Your task to perform on an android device: Play the last video I watched on Youtube Image 0: 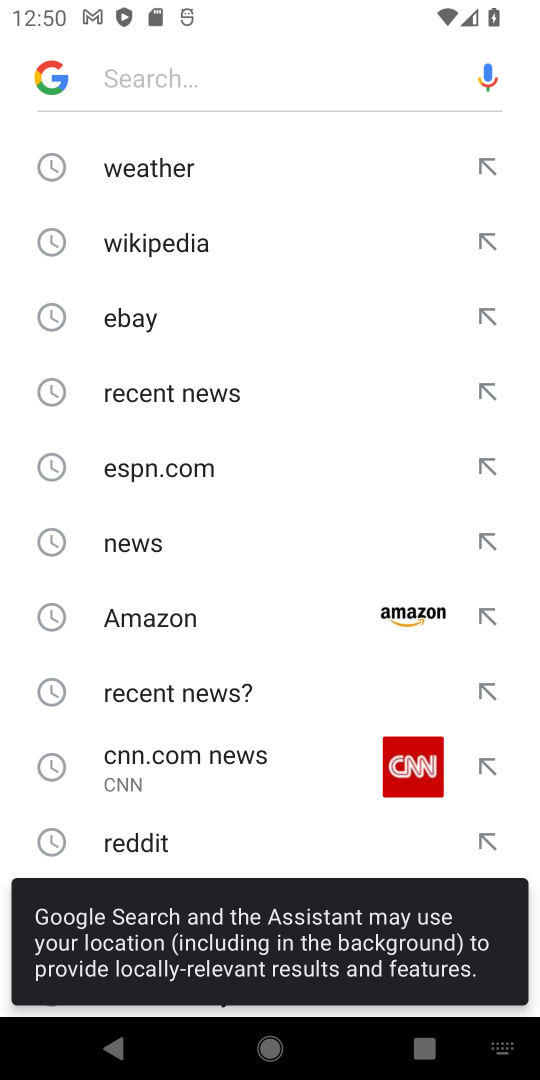
Step 0: press home button
Your task to perform on an android device: Play the last video I watched on Youtube Image 1: 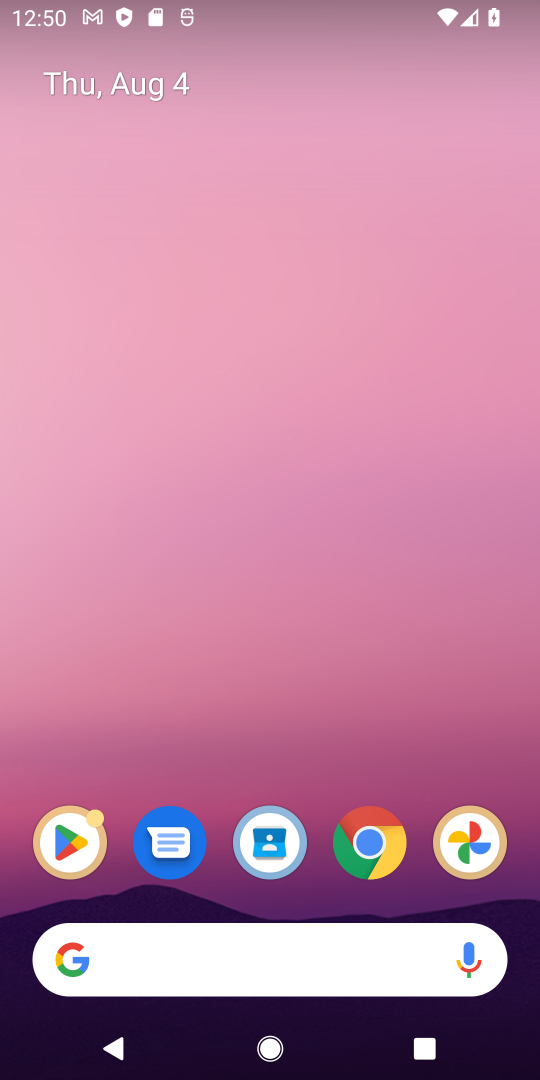
Step 1: drag from (277, 753) to (154, 120)
Your task to perform on an android device: Play the last video I watched on Youtube Image 2: 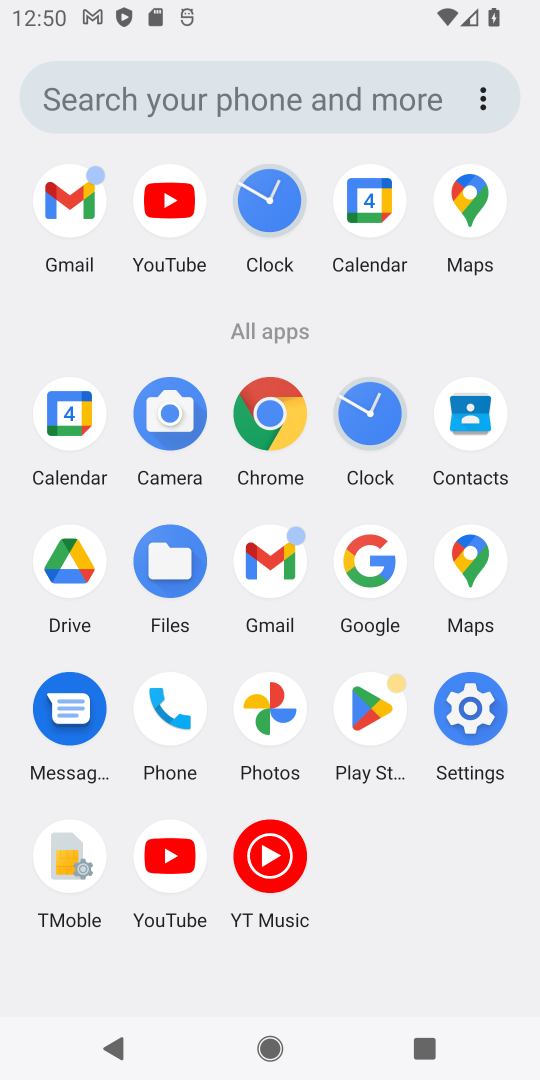
Step 2: click (168, 839)
Your task to perform on an android device: Play the last video I watched on Youtube Image 3: 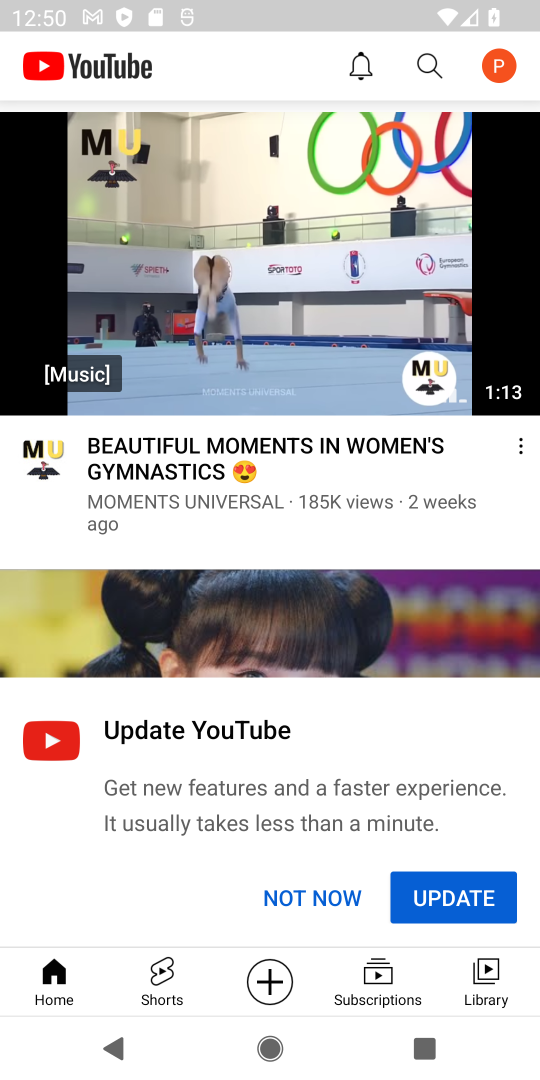
Step 3: click (480, 977)
Your task to perform on an android device: Play the last video I watched on Youtube Image 4: 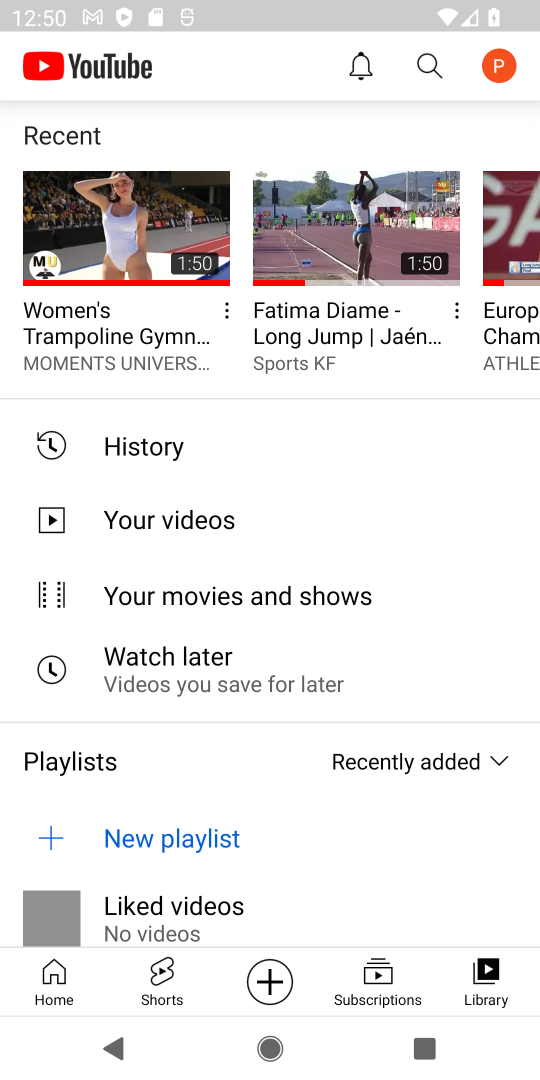
Step 4: click (152, 267)
Your task to perform on an android device: Play the last video I watched on Youtube Image 5: 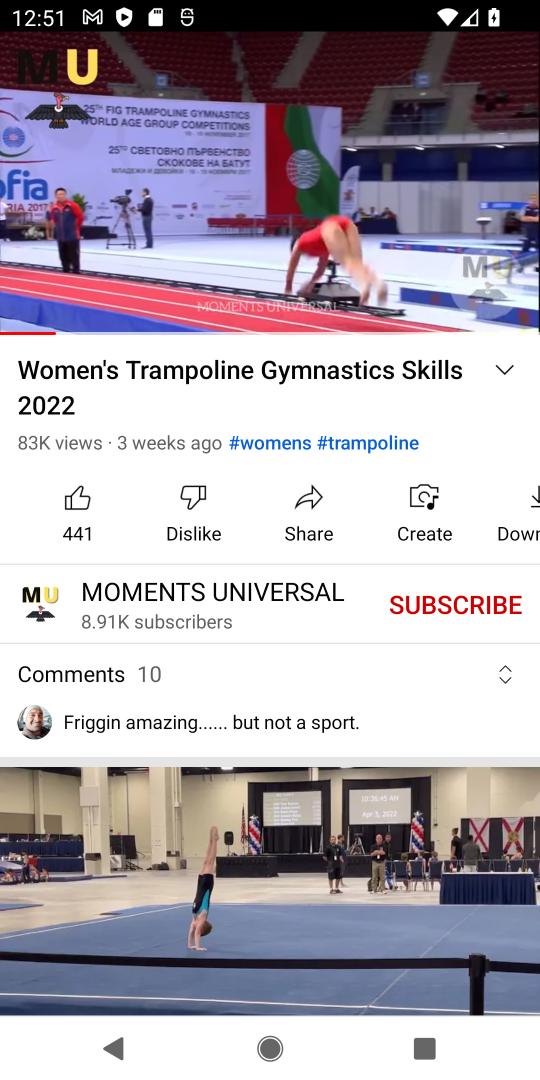
Step 5: task complete